Your task to perform on an android device: turn on improve location accuracy Image 0: 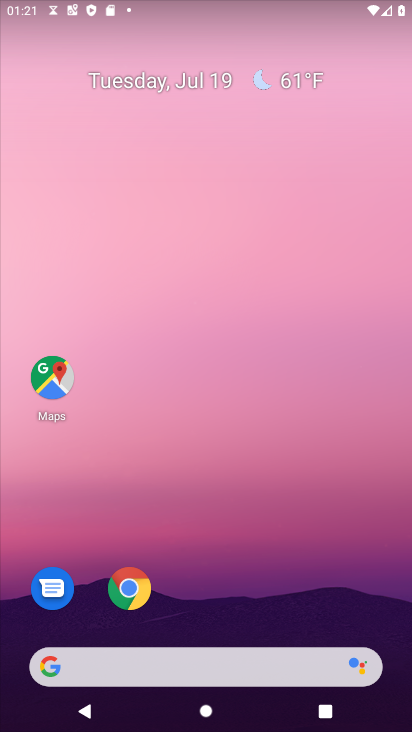
Step 0: drag from (220, 689) to (294, 179)
Your task to perform on an android device: turn on improve location accuracy Image 1: 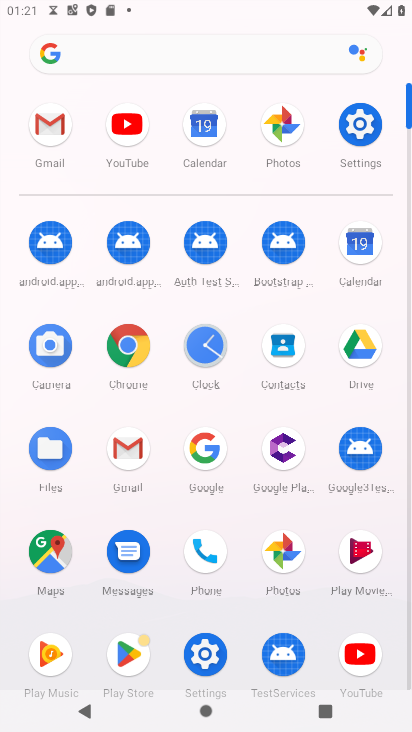
Step 1: click (370, 136)
Your task to perform on an android device: turn on improve location accuracy Image 2: 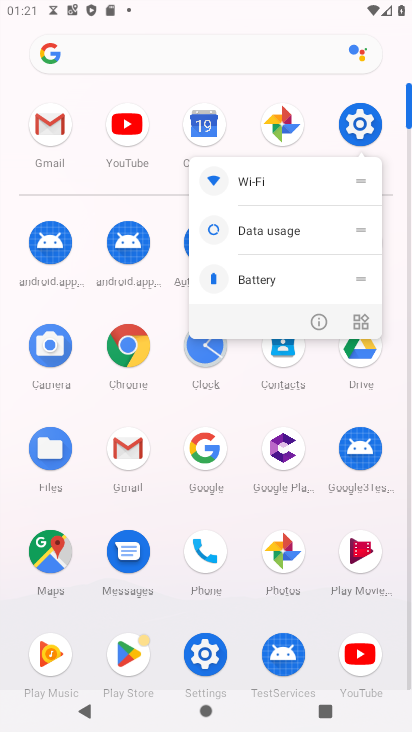
Step 2: click (348, 129)
Your task to perform on an android device: turn on improve location accuracy Image 3: 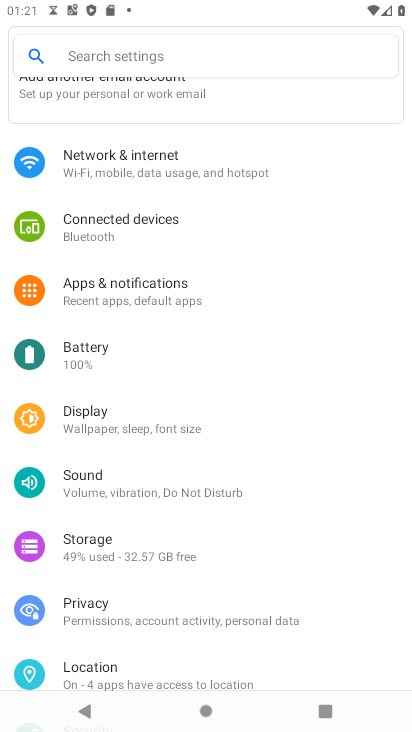
Step 3: click (110, 675)
Your task to perform on an android device: turn on improve location accuracy Image 4: 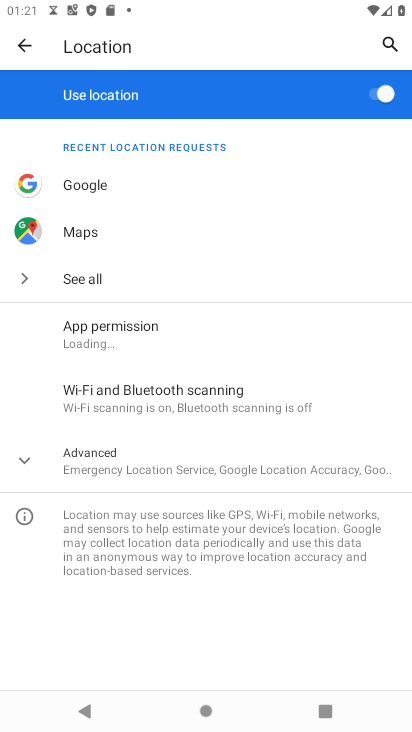
Step 4: click (87, 464)
Your task to perform on an android device: turn on improve location accuracy Image 5: 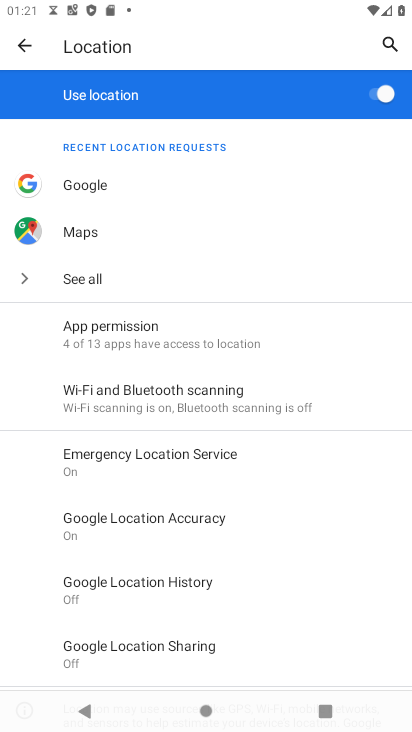
Step 5: click (203, 515)
Your task to perform on an android device: turn on improve location accuracy Image 6: 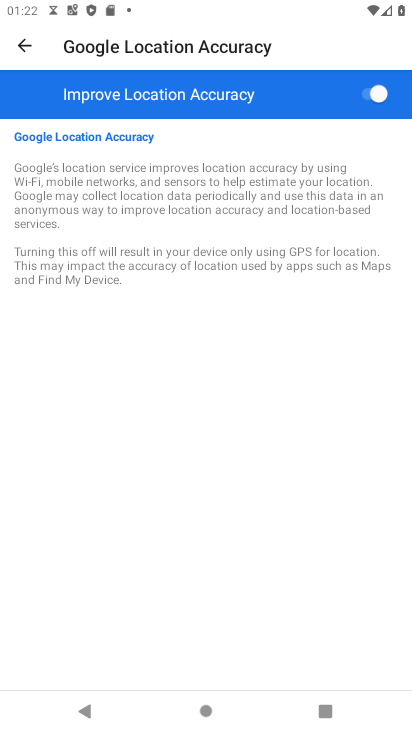
Step 6: task complete